Your task to perform on an android device: turn on the 24-hour format for clock Image 0: 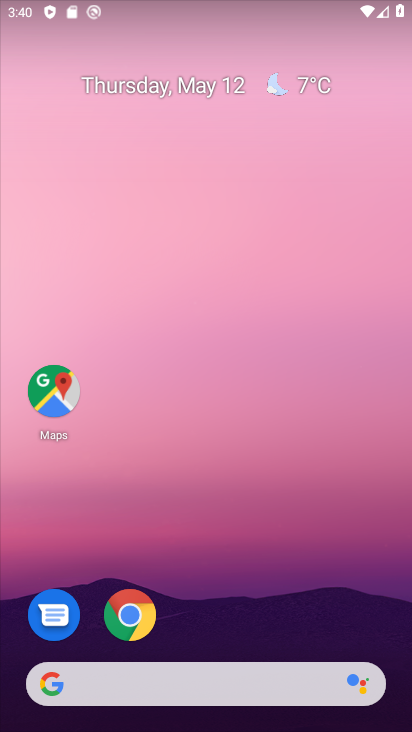
Step 0: drag from (261, 616) to (185, 17)
Your task to perform on an android device: turn on the 24-hour format for clock Image 1: 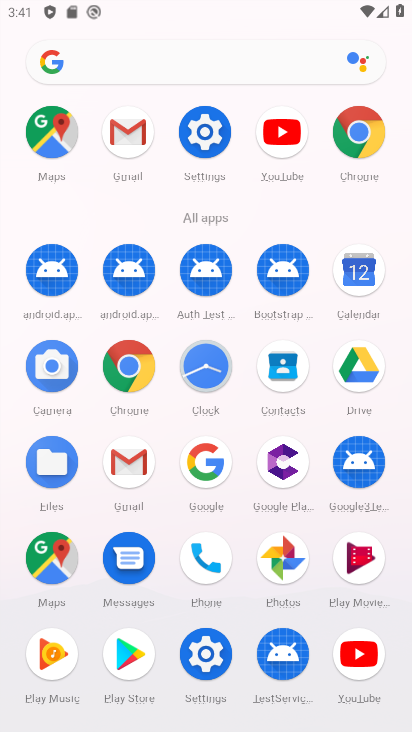
Step 1: click (200, 371)
Your task to perform on an android device: turn on the 24-hour format for clock Image 2: 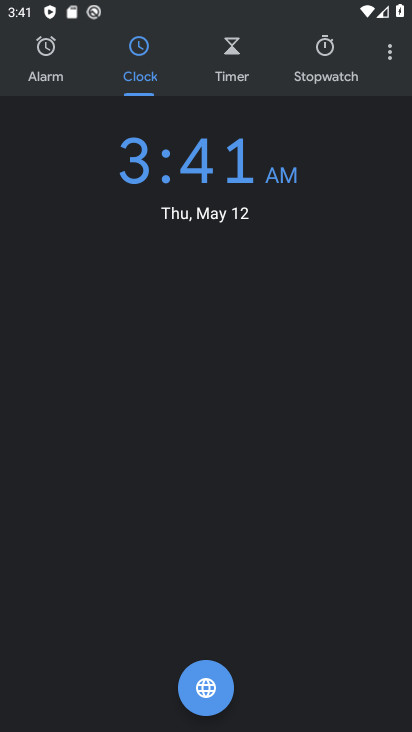
Step 2: click (384, 66)
Your task to perform on an android device: turn on the 24-hour format for clock Image 3: 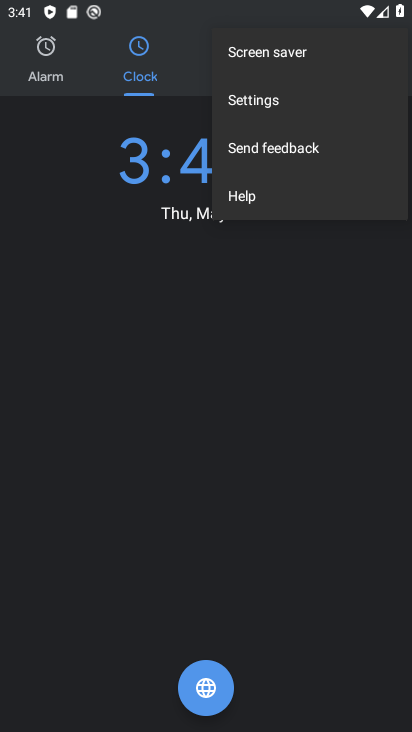
Step 3: click (256, 102)
Your task to perform on an android device: turn on the 24-hour format for clock Image 4: 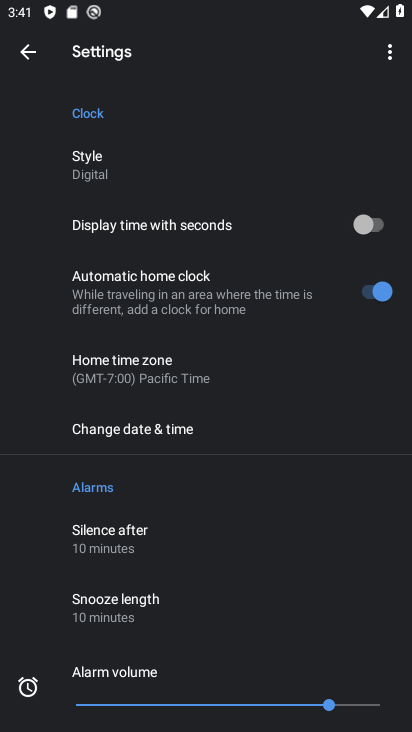
Step 4: drag from (258, 617) to (201, 90)
Your task to perform on an android device: turn on the 24-hour format for clock Image 5: 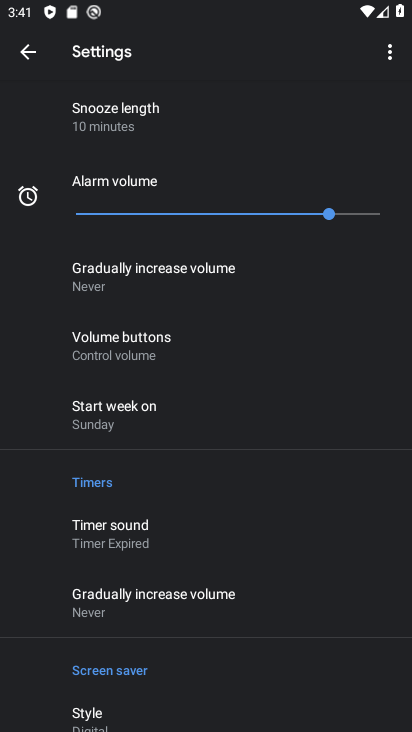
Step 5: drag from (194, 591) to (180, 731)
Your task to perform on an android device: turn on the 24-hour format for clock Image 6: 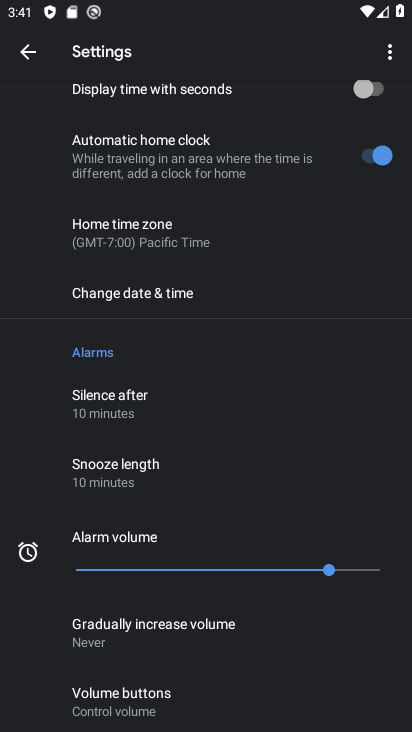
Step 6: click (154, 293)
Your task to perform on an android device: turn on the 24-hour format for clock Image 7: 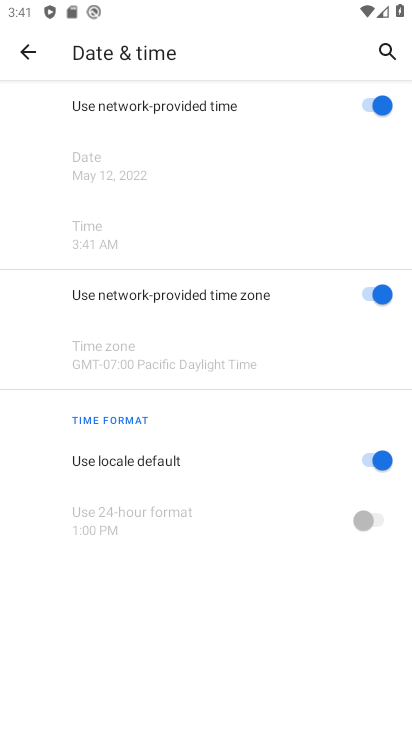
Step 7: click (369, 457)
Your task to perform on an android device: turn on the 24-hour format for clock Image 8: 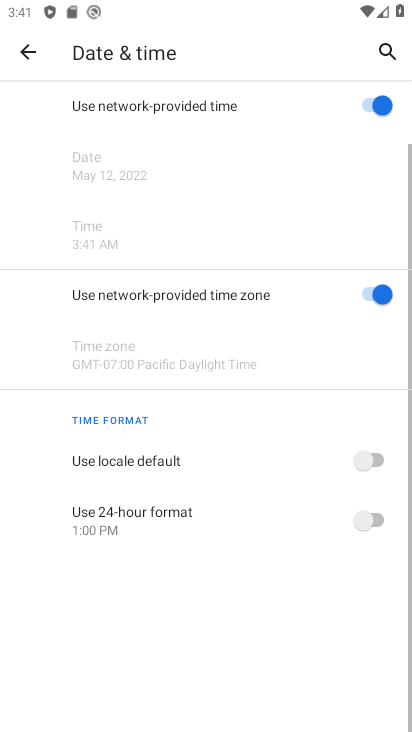
Step 8: click (368, 524)
Your task to perform on an android device: turn on the 24-hour format for clock Image 9: 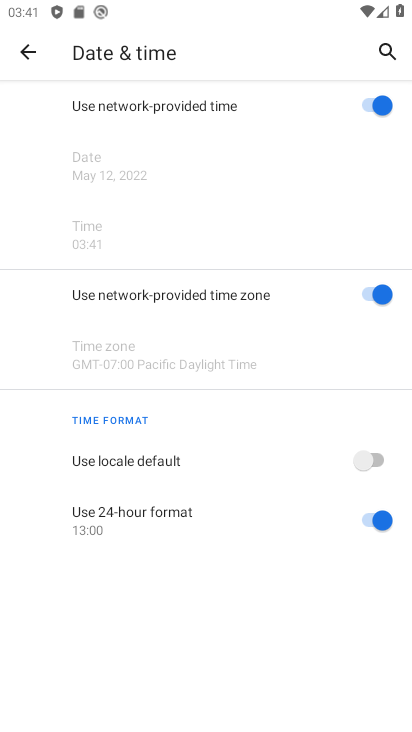
Step 9: task complete